Your task to perform on an android device: Open maps Image 0: 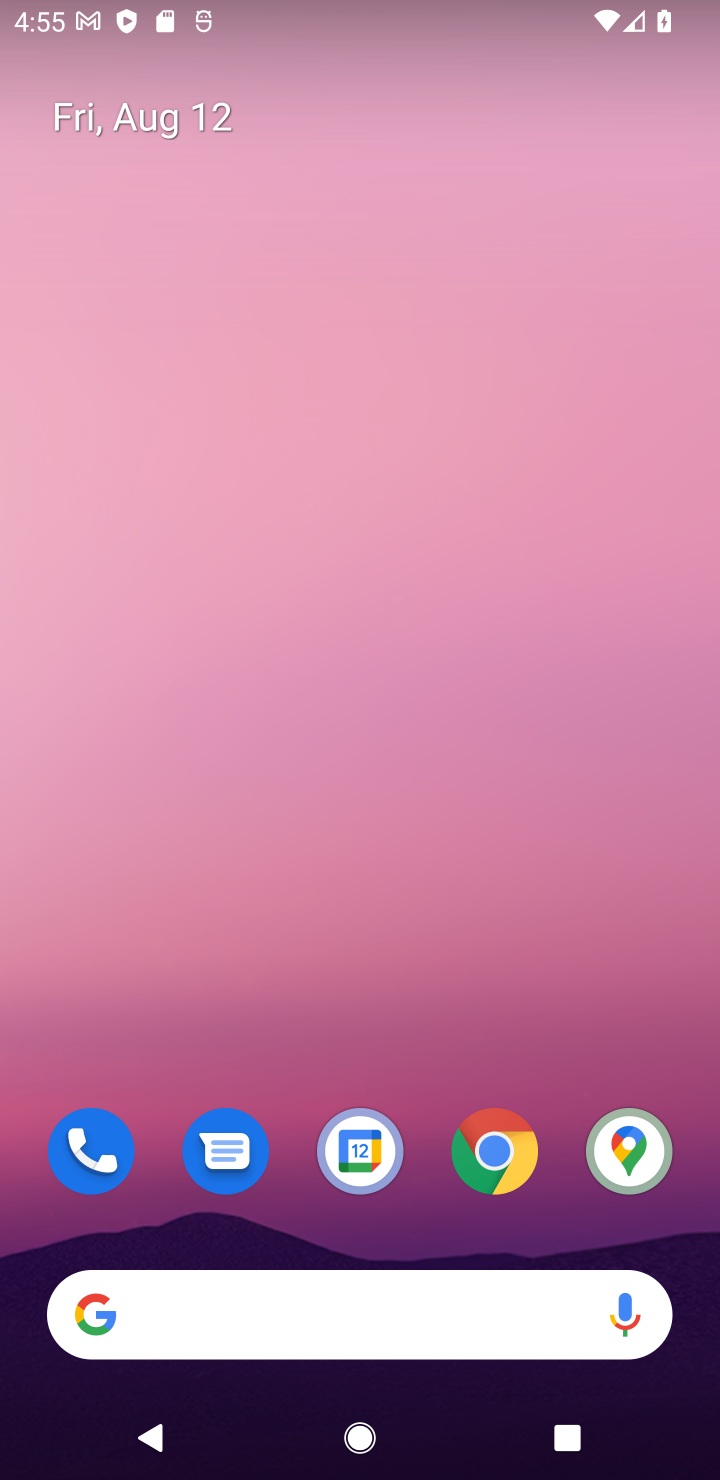
Step 0: drag from (394, 1202) to (608, 42)
Your task to perform on an android device: Open maps Image 1: 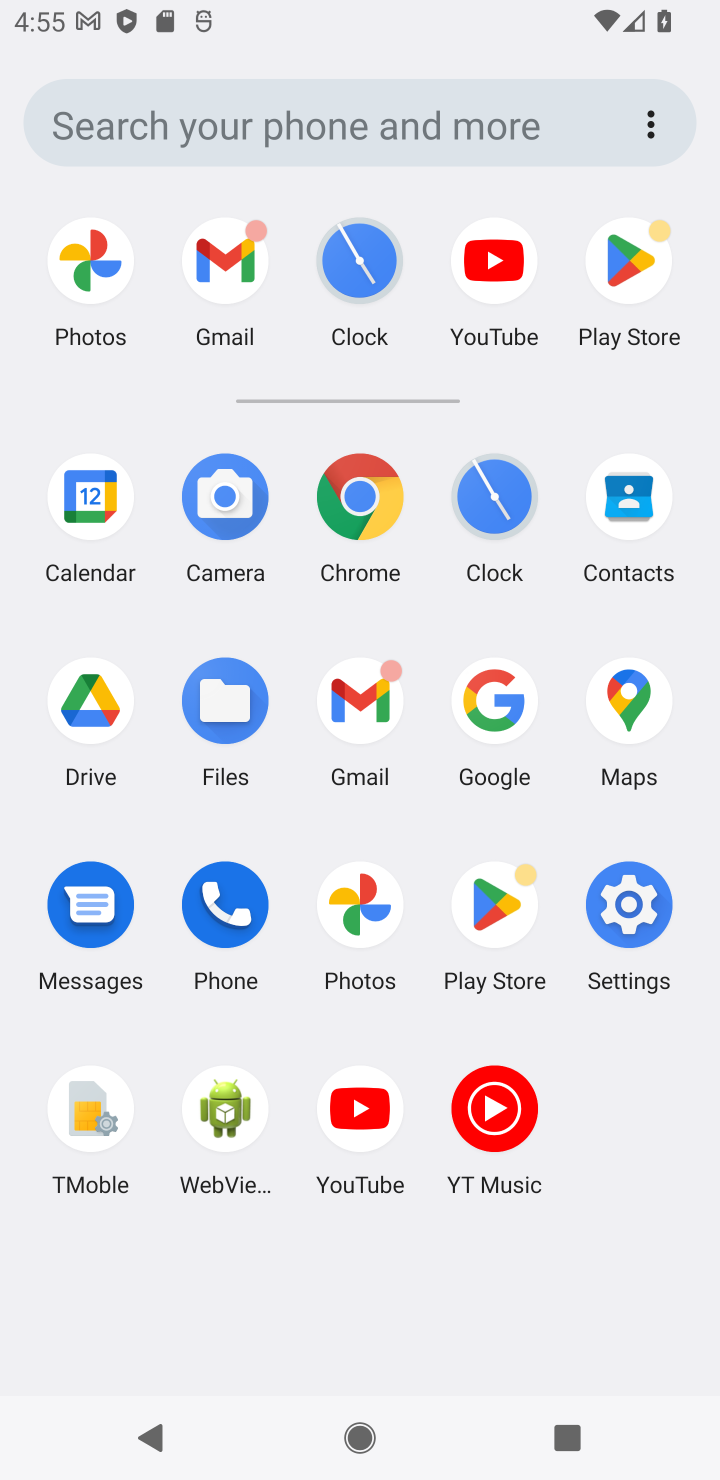
Step 1: click (638, 709)
Your task to perform on an android device: Open maps Image 2: 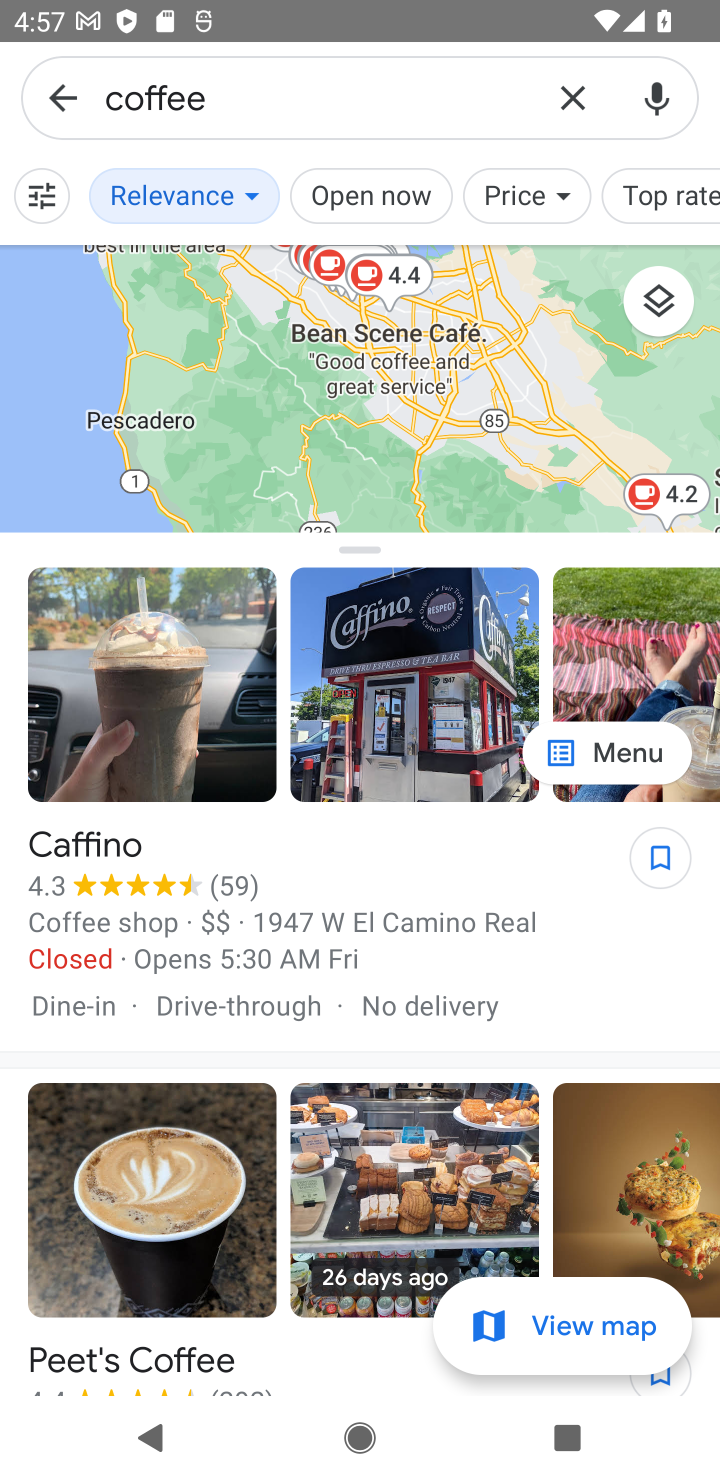
Step 2: task complete